Your task to perform on an android device: Open the stopwatch Image 0: 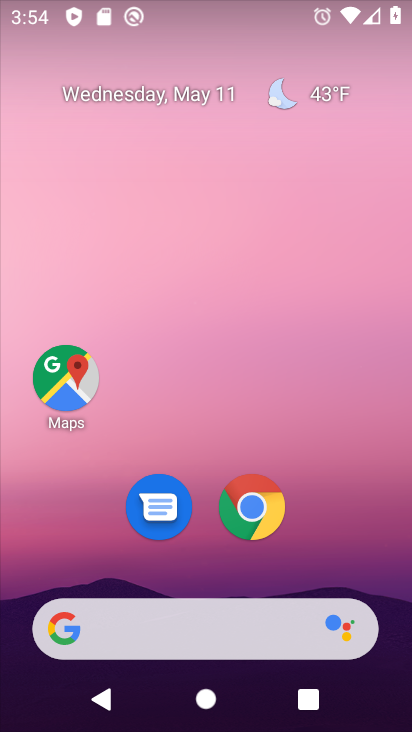
Step 0: drag from (395, 624) to (332, 89)
Your task to perform on an android device: Open the stopwatch Image 1: 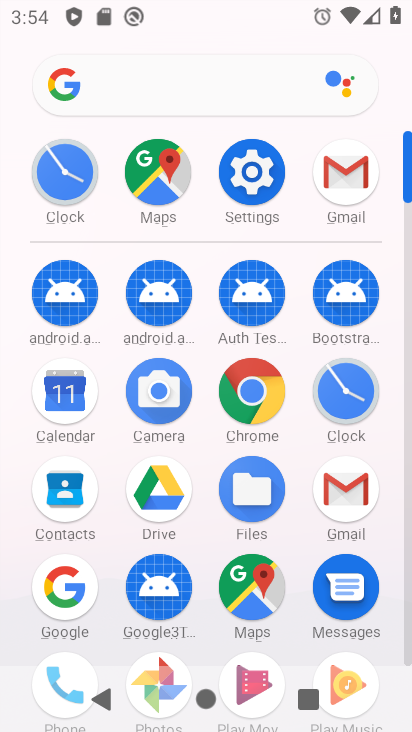
Step 1: click (406, 655)
Your task to perform on an android device: Open the stopwatch Image 2: 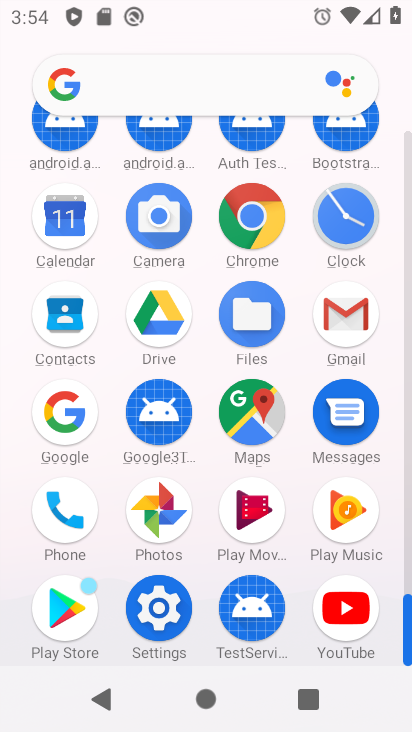
Step 2: click (347, 216)
Your task to perform on an android device: Open the stopwatch Image 3: 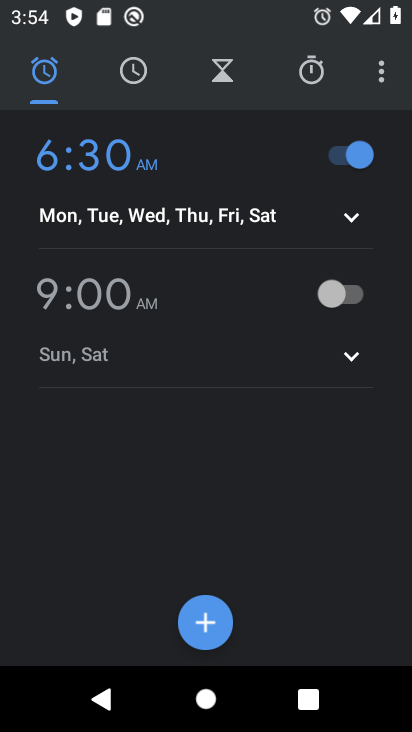
Step 3: click (312, 71)
Your task to perform on an android device: Open the stopwatch Image 4: 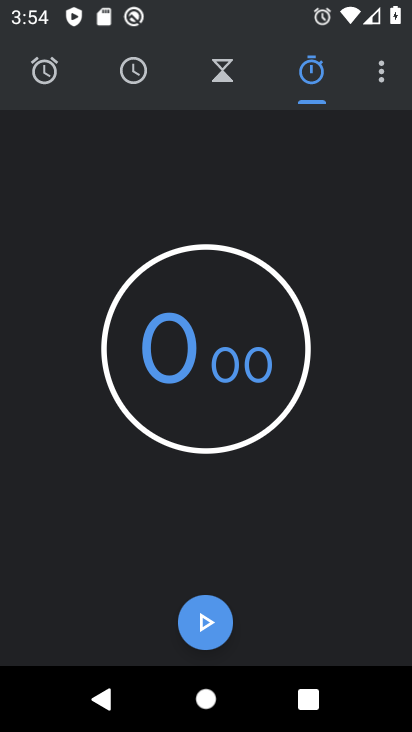
Step 4: task complete